Your task to perform on an android device: check the backup settings in the google photos Image 0: 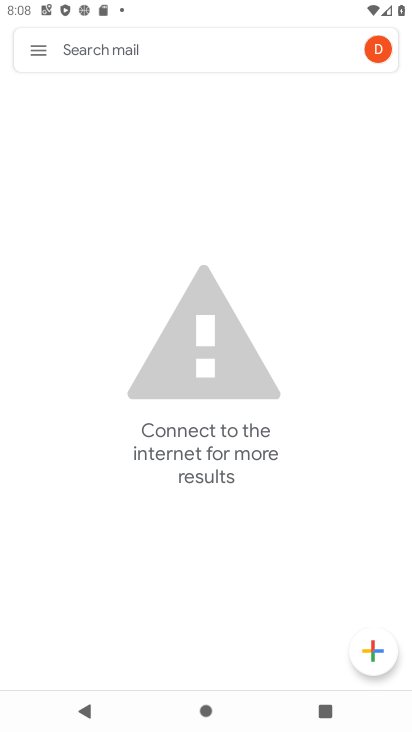
Step 0: press home button
Your task to perform on an android device: check the backup settings in the google photos Image 1: 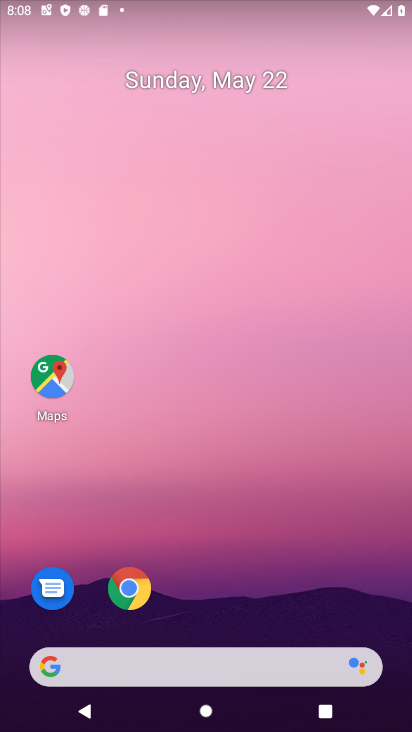
Step 1: drag from (231, 494) to (180, 56)
Your task to perform on an android device: check the backup settings in the google photos Image 2: 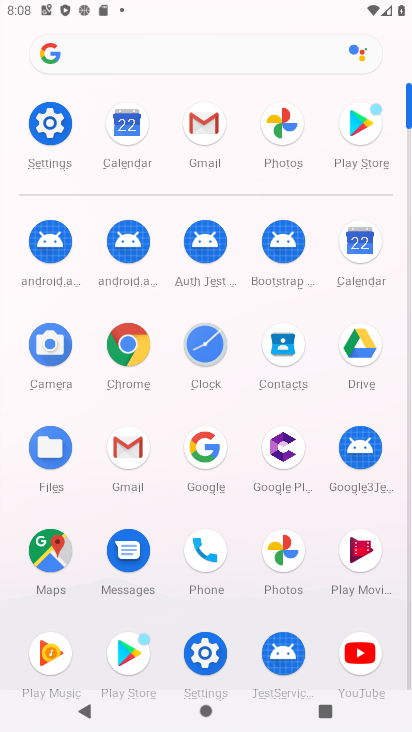
Step 2: click (280, 118)
Your task to perform on an android device: check the backup settings in the google photos Image 3: 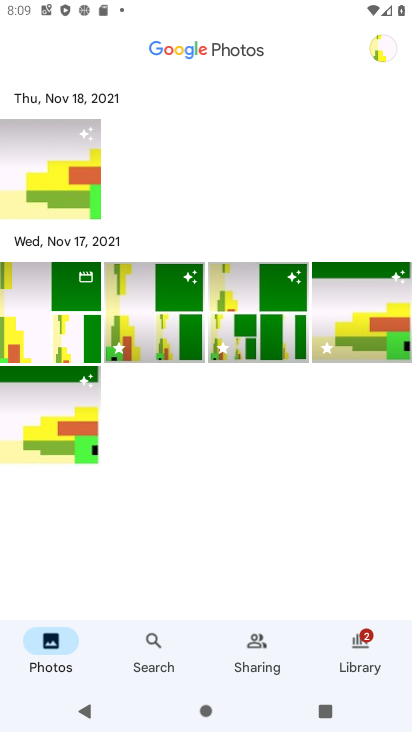
Step 3: click (357, 643)
Your task to perform on an android device: check the backup settings in the google photos Image 4: 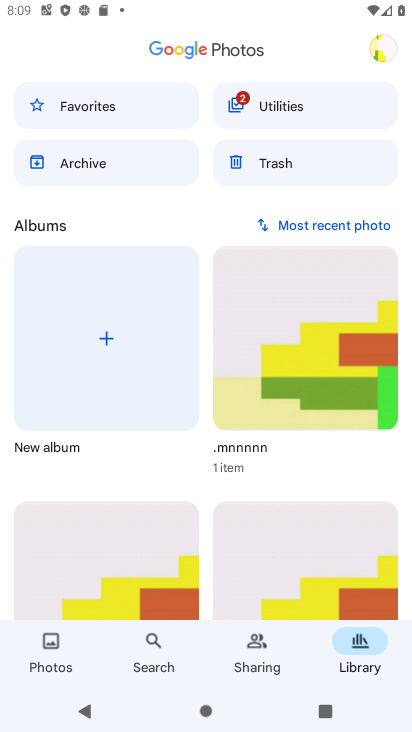
Step 4: drag from (159, 448) to (160, 126)
Your task to perform on an android device: check the backup settings in the google photos Image 5: 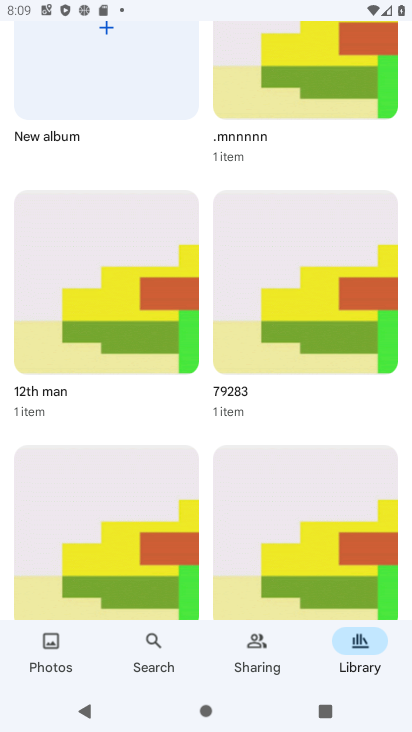
Step 5: drag from (202, 88) to (200, 704)
Your task to perform on an android device: check the backup settings in the google photos Image 6: 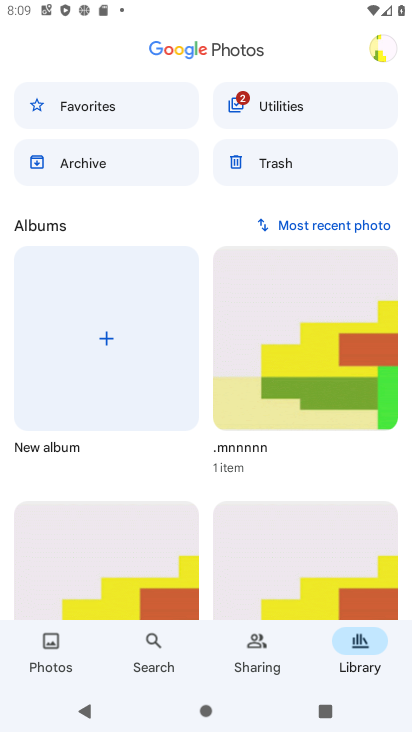
Step 6: click (378, 44)
Your task to perform on an android device: check the backup settings in the google photos Image 7: 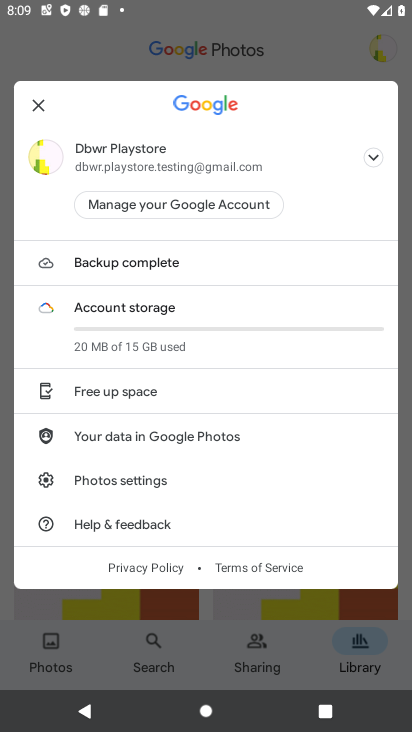
Step 7: click (106, 482)
Your task to perform on an android device: check the backup settings in the google photos Image 8: 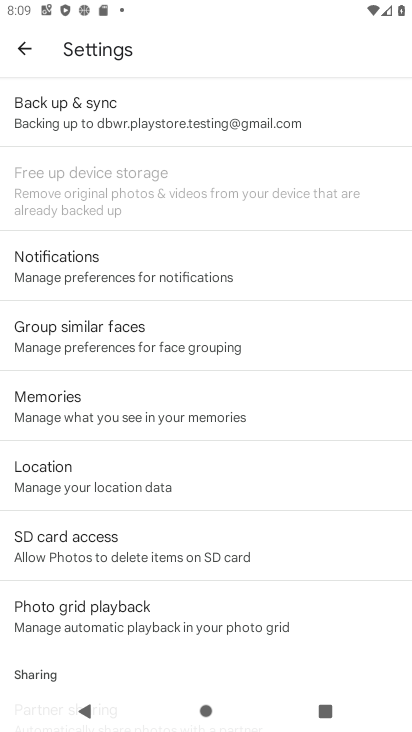
Step 8: click (67, 111)
Your task to perform on an android device: check the backup settings in the google photos Image 9: 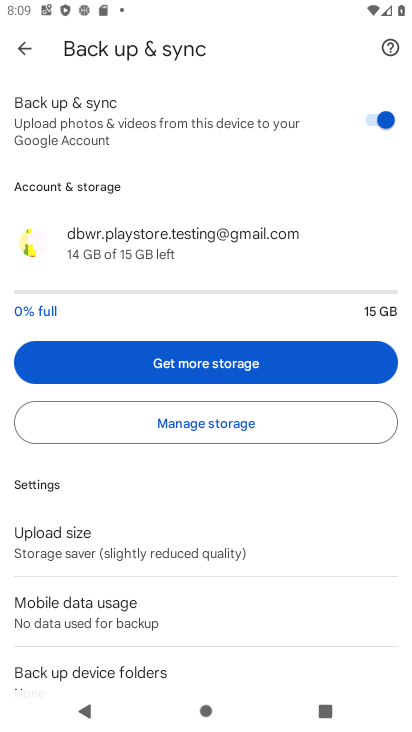
Step 9: task complete